Your task to perform on an android device: open app "Airtel Thanks" (install if not already installed) and enter user name: "acclaimed@inbox.com" and password: "dichotomize" Image 0: 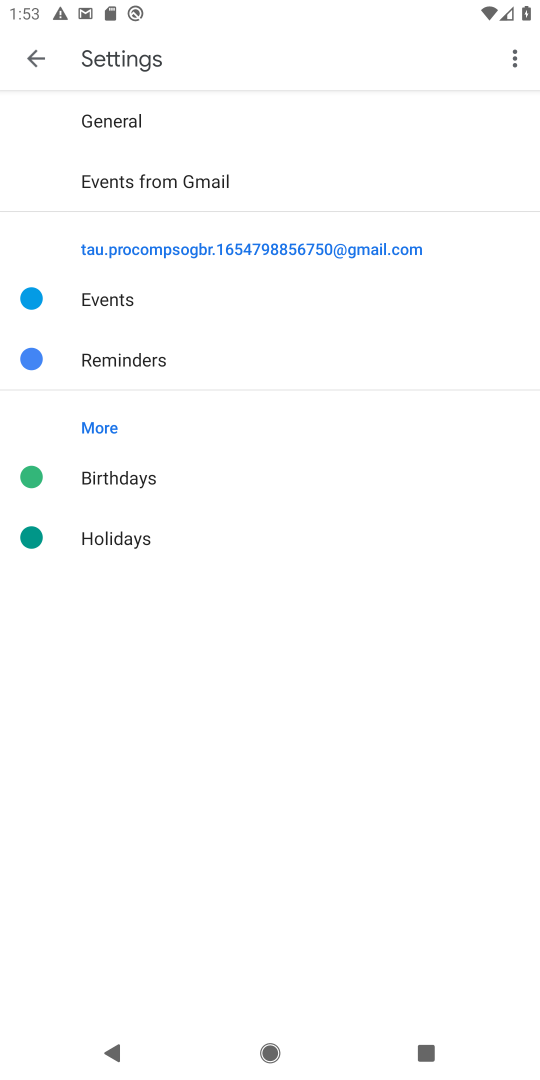
Step 0: press home button
Your task to perform on an android device: open app "Airtel Thanks" (install if not already installed) and enter user name: "acclaimed@inbox.com" and password: "dichotomize" Image 1: 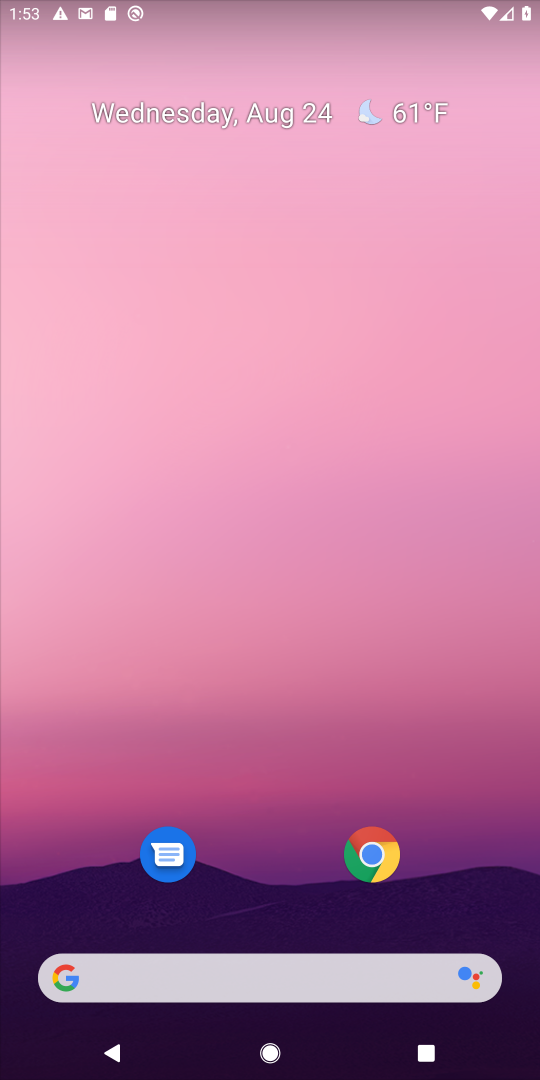
Step 1: drag from (444, 895) to (447, 111)
Your task to perform on an android device: open app "Airtel Thanks" (install if not already installed) and enter user name: "acclaimed@inbox.com" and password: "dichotomize" Image 2: 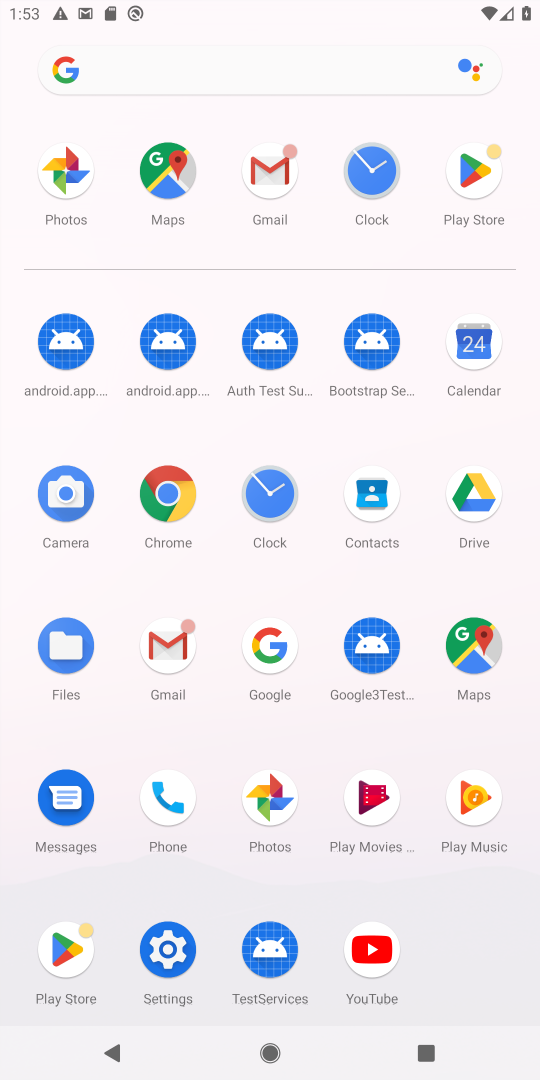
Step 2: click (477, 173)
Your task to perform on an android device: open app "Airtel Thanks" (install if not already installed) and enter user name: "acclaimed@inbox.com" and password: "dichotomize" Image 3: 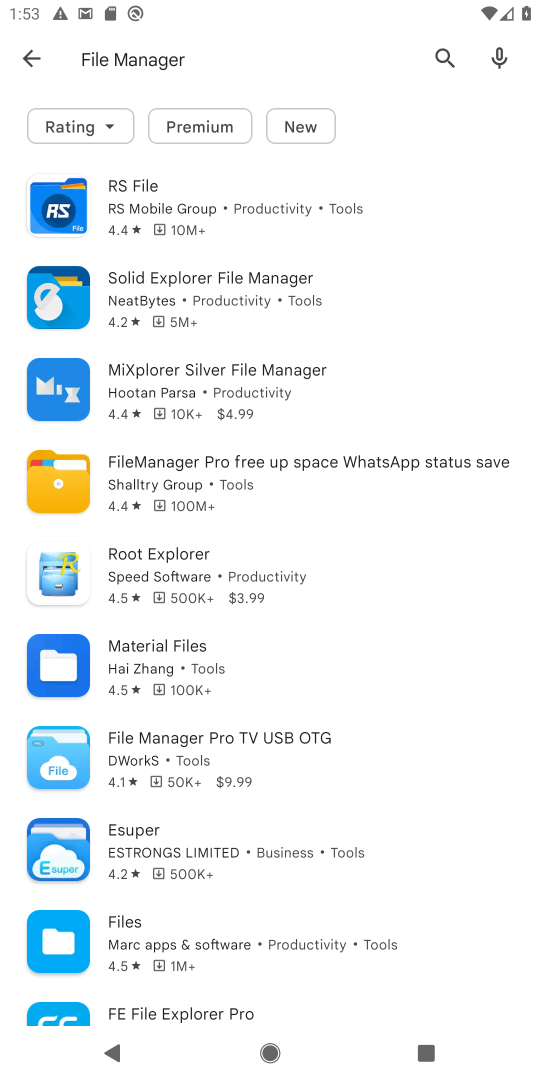
Step 3: press back button
Your task to perform on an android device: open app "Airtel Thanks" (install if not already installed) and enter user name: "acclaimed@inbox.com" and password: "dichotomize" Image 4: 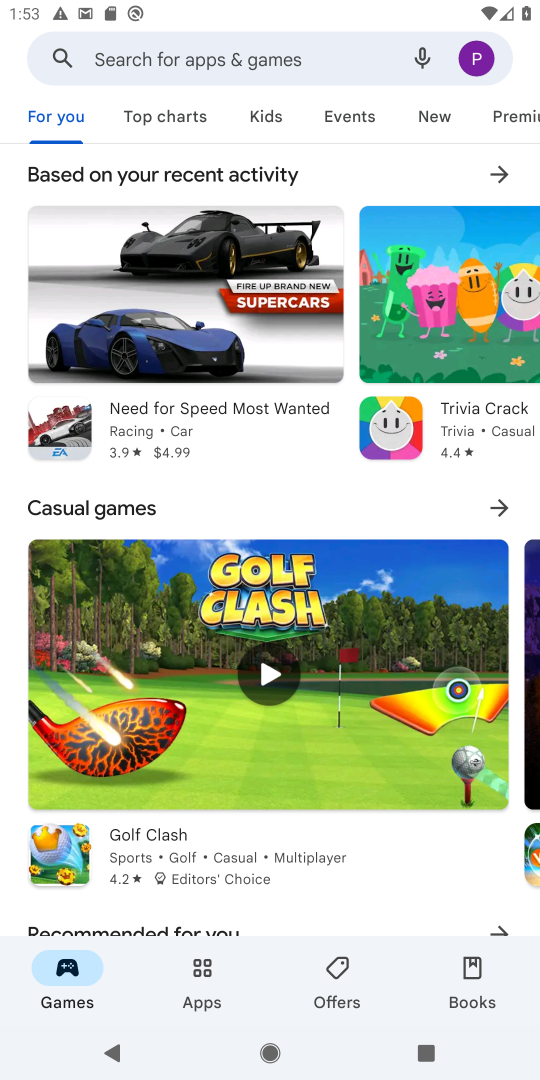
Step 4: click (207, 61)
Your task to perform on an android device: open app "Airtel Thanks" (install if not already installed) and enter user name: "acclaimed@inbox.com" and password: "dichotomize" Image 5: 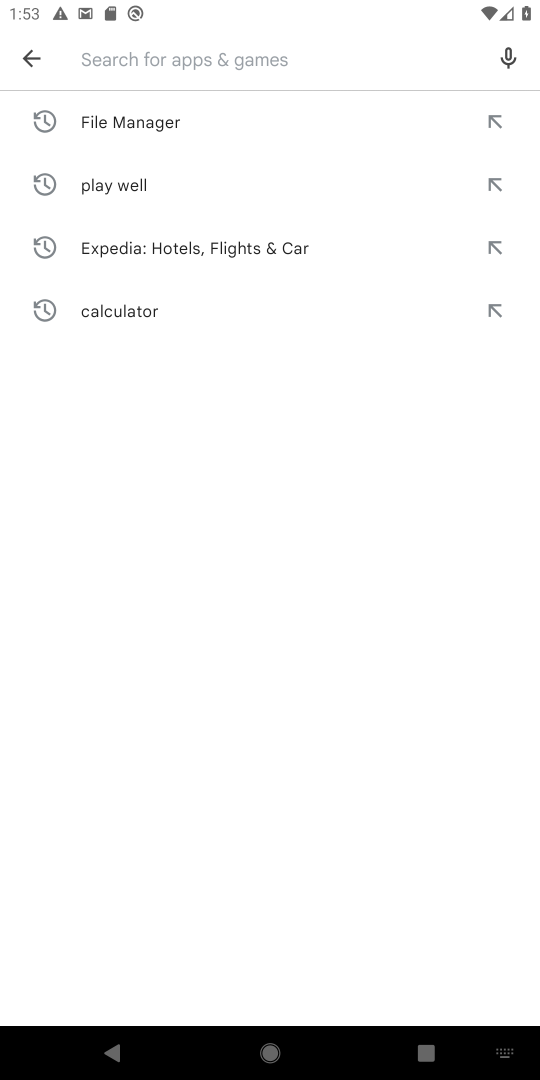
Step 5: type "Airtel Thanks"
Your task to perform on an android device: open app "Airtel Thanks" (install if not already installed) and enter user name: "acclaimed@inbox.com" and password: "dichotomize" Image 6: 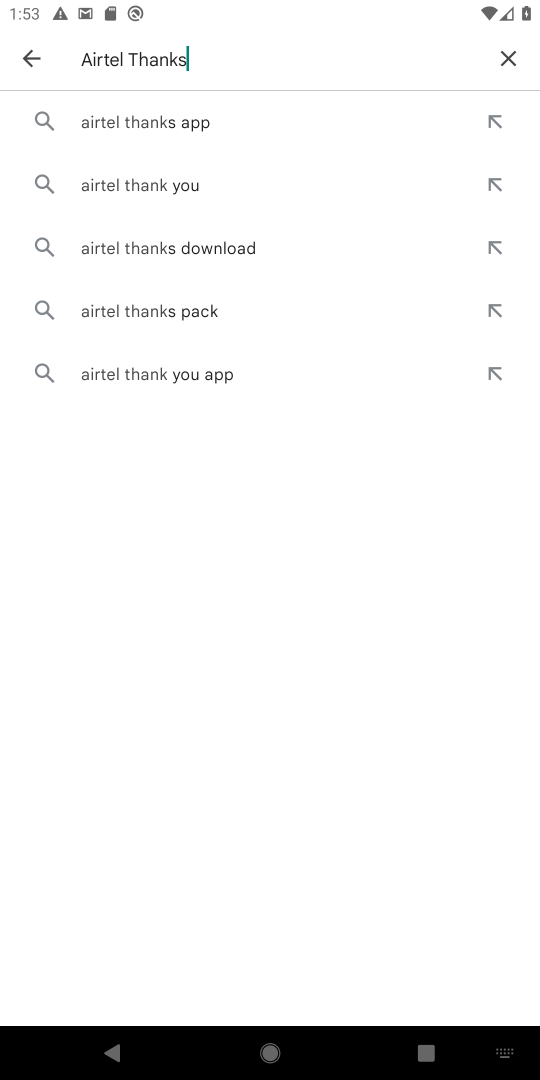
Step 6: press enter
Your task to perform on an android device: open app "Airtel Thanks" (install if not already installed) and enter user name: "acclaimed@inbox.com" and password: "dichotomize" Image 7: 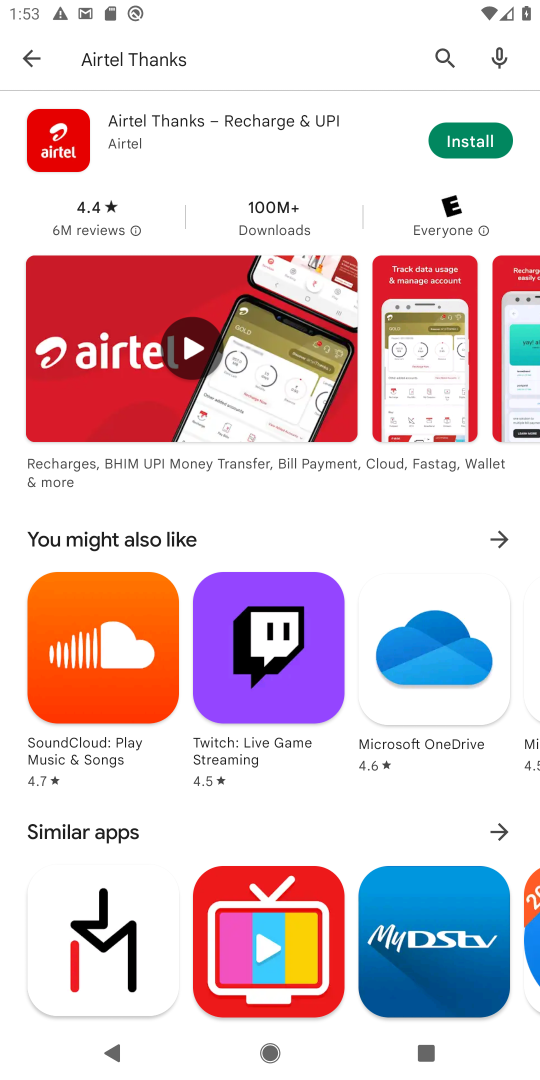
Step 7: click (462, 134)
Your task to perform on an android device: open app "Airtel Thanks" (install if not already installed) and enter user name: "acclaimed@inbox.com" and password: "dichotomize" Image 8: 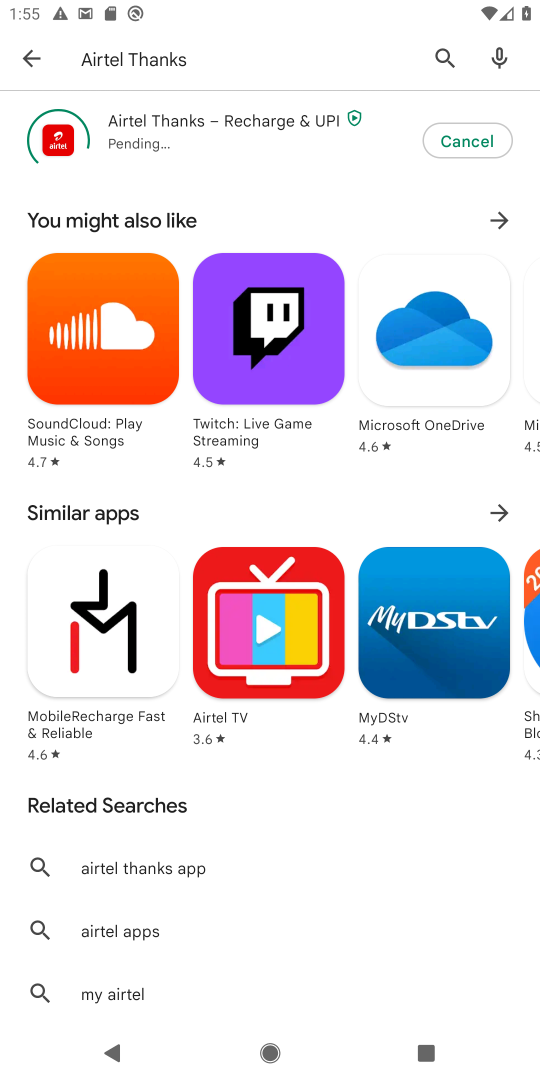
Step 8: task complete